Your task to perform on an android device: Open the phone app and click the voicemail tab. Image 0: 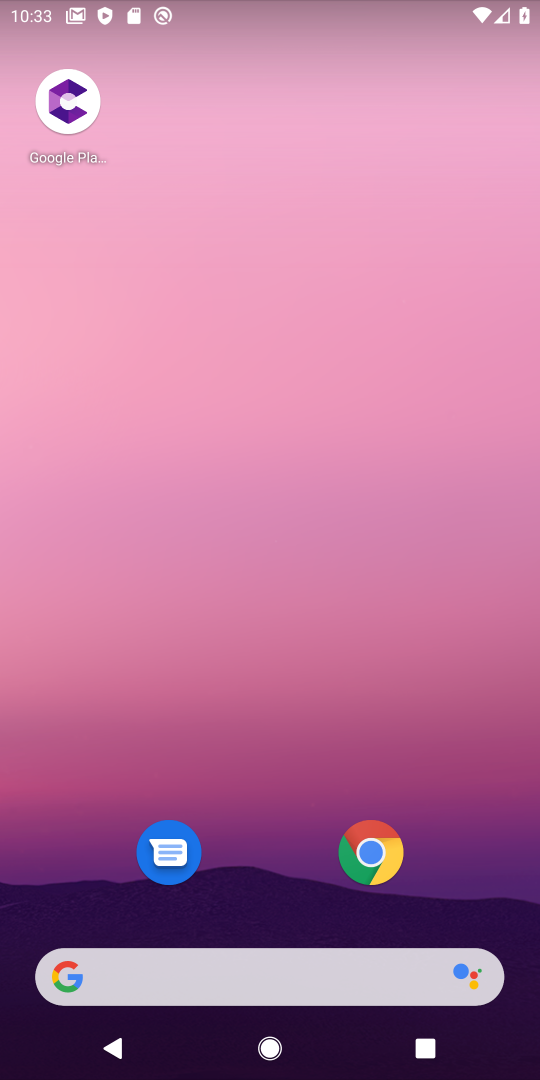
Step 0: drag from (345, 910) to (299, 411)
Your task to perform on an android device: Open the phone app and click the voicemail tab. Image 1: 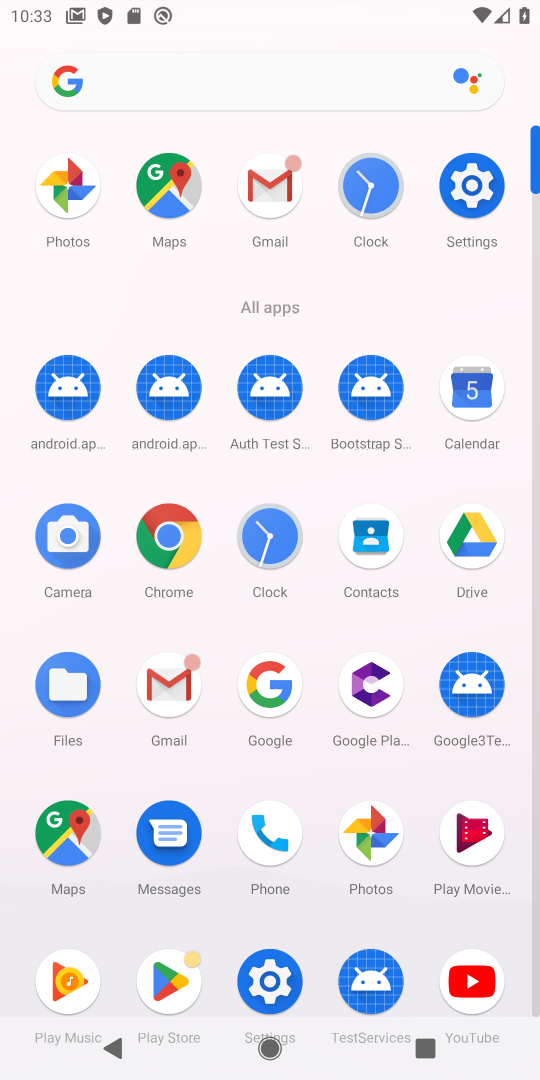
Step 1: click (240, 842)
Your task to perform on an android device: Open the phone app and click the voicemail tab. Image 2: 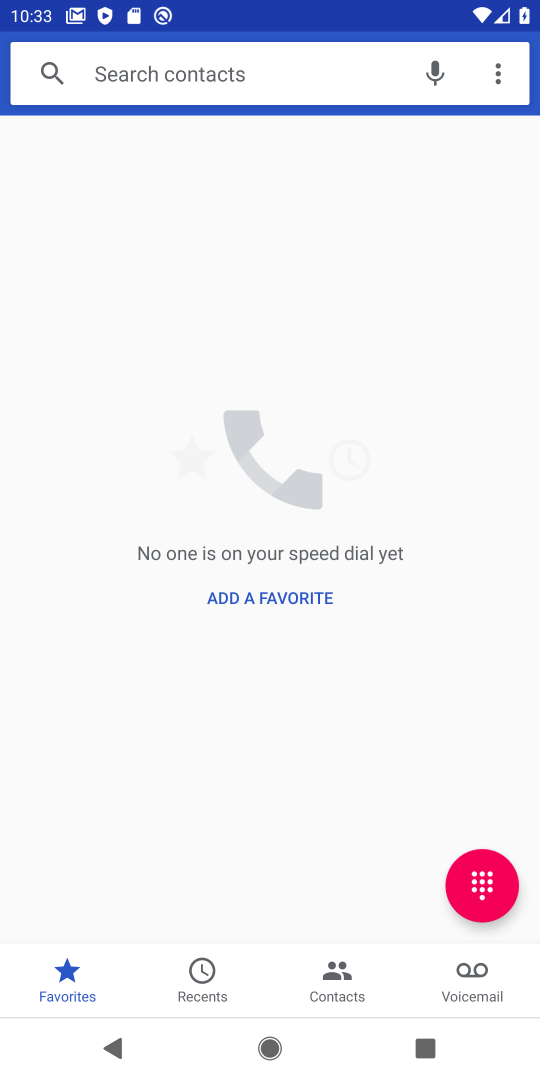
Step 2: click (462, 968)
Your task to perform on an android device: Open the phone app and click the voicemail tab. Image 3: 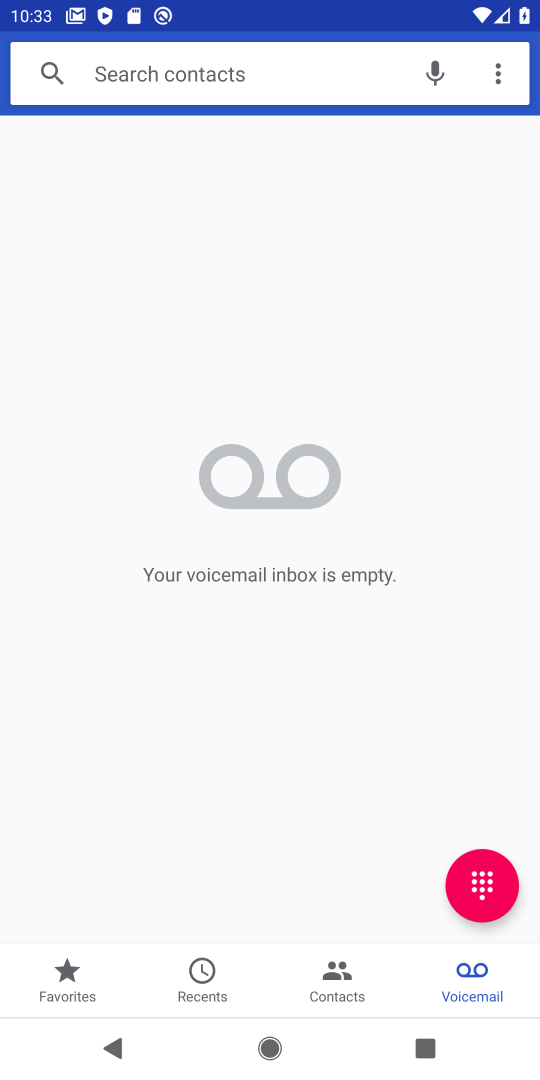
Step 3: task complete